Your task to perform on an android device: toggle wifi Image 0: 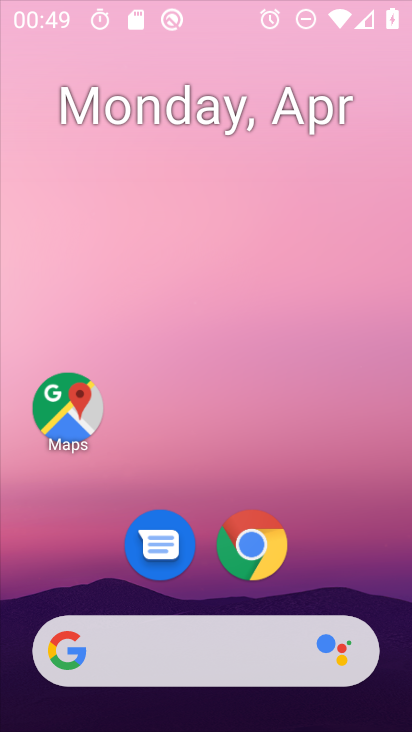
Step 0: click (363, 246)
Your task to perform on an android device: toggle wifi Image 1: 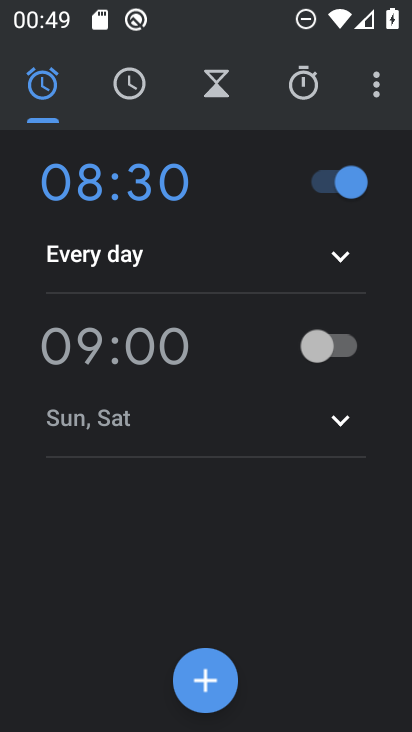
Step 1: press home button
Your task to perform on an android device: toggle wifi Image 2: 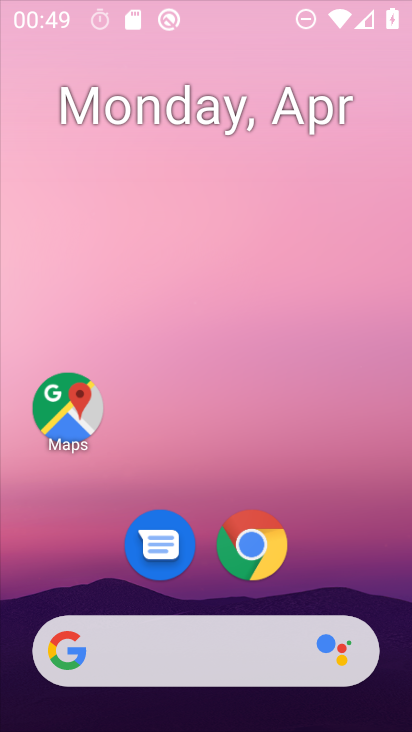
Step 2: drag from (279, 599) to (294, 300)
Your task to perform on an android device: toggle wifi Image 3: 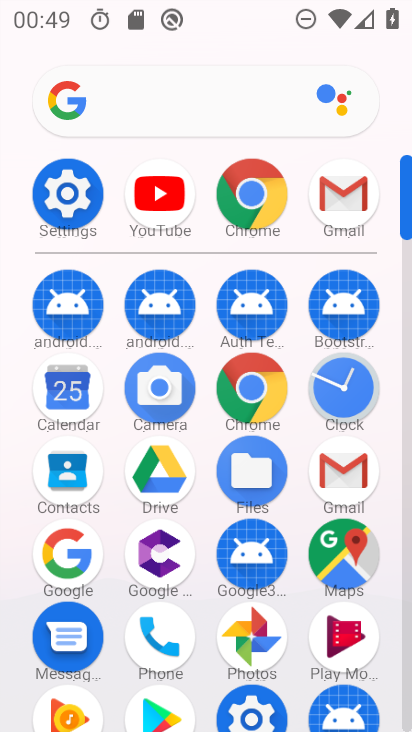
Step 3: click (78, 182)
Your task to perform on an android device: toggle wifi Image 4: 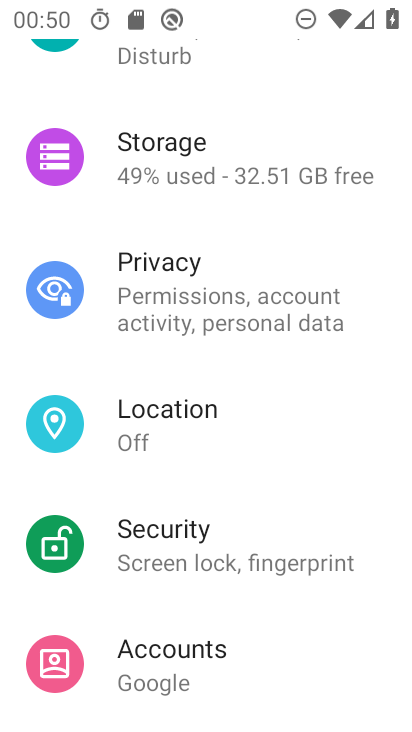
Step 4: drag from (225, 104) to (178, 716)
Your task to perform on an android device: toggle wifi Image 5: 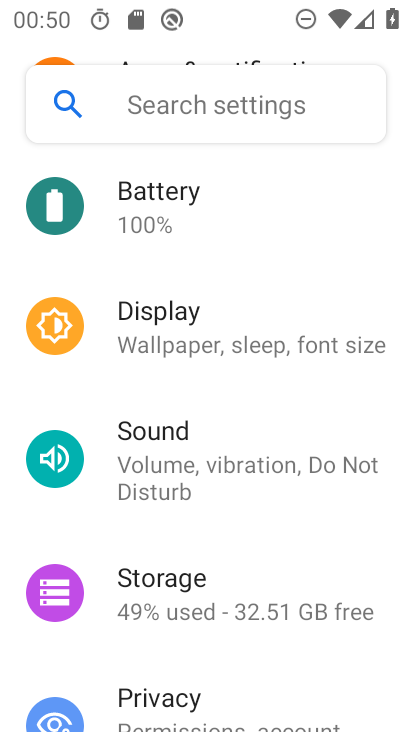
Step 5: drag from (197, 297) to (185, 605)
Your task to perform on an android device: toggle wifi Image 6: 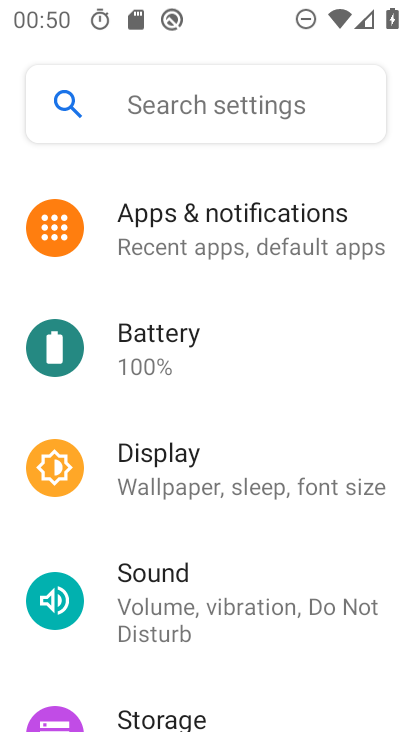
Step 6: click (237, 220)
Your task to perform on an android device: toggle wifi Image 7: 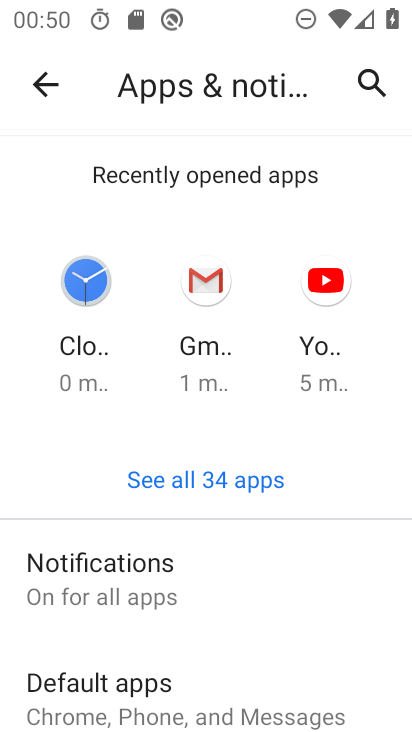
Step 7: click (49, 82)
Your task to perform on an android device: toggle wifi Image 8: 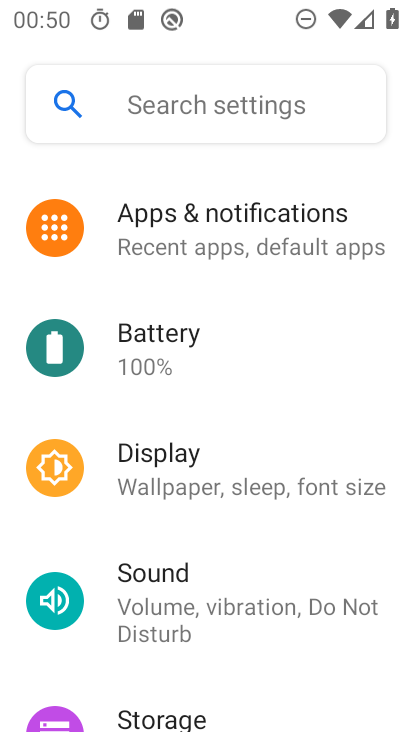
Step 8: drag from (237, 220) to (235, 604)
Your task to perform on an android device: toggle wifi Image 9: 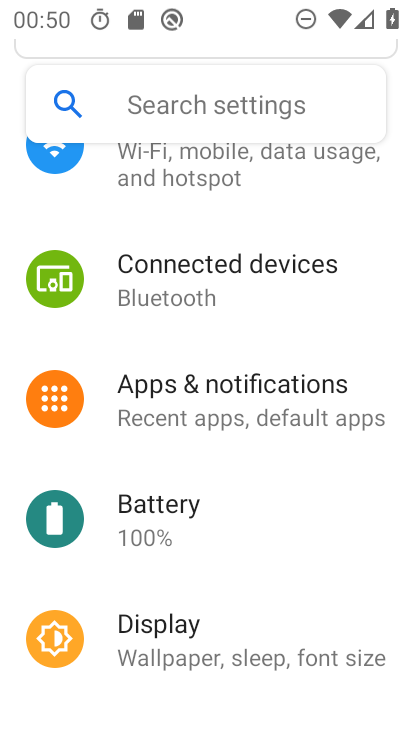
Step 9: click (222, 138)
Your task to perform on an android device: toggle wifi Image 10: 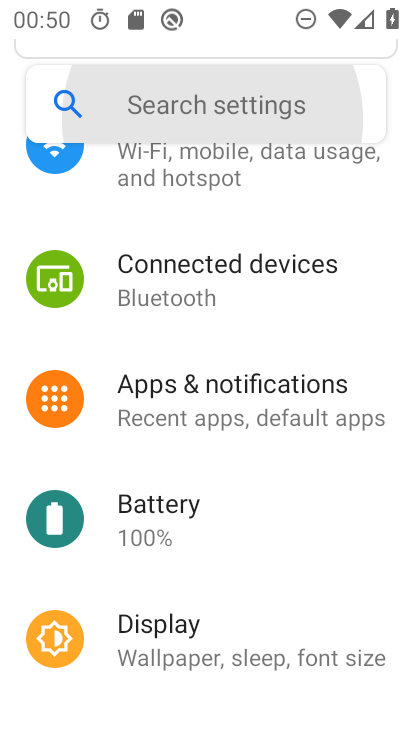
Step 10: click (212, 159)
Your task to perform on an android device: toggle wifi Image 11: 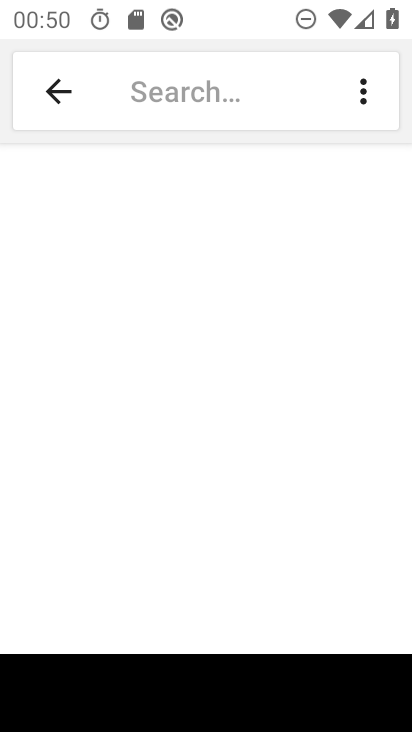
Step 11: click (50, 89)
Your task to perform on an android device: toggle wifi Image 12: 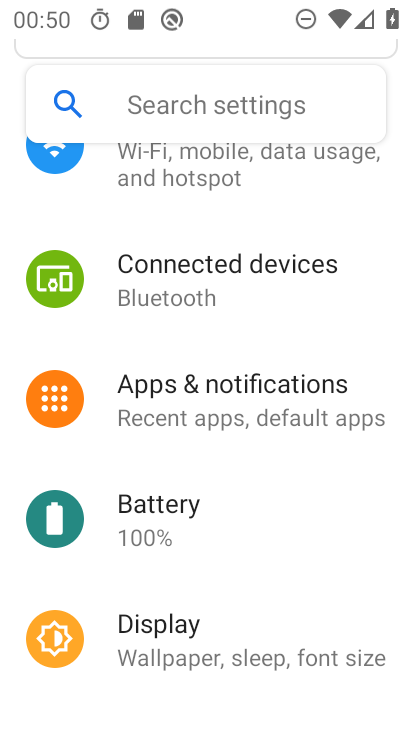
Step 12: drag from (183, 184) to (186, 561)
Your task to perform on an android device: toggle wifi Image 13: 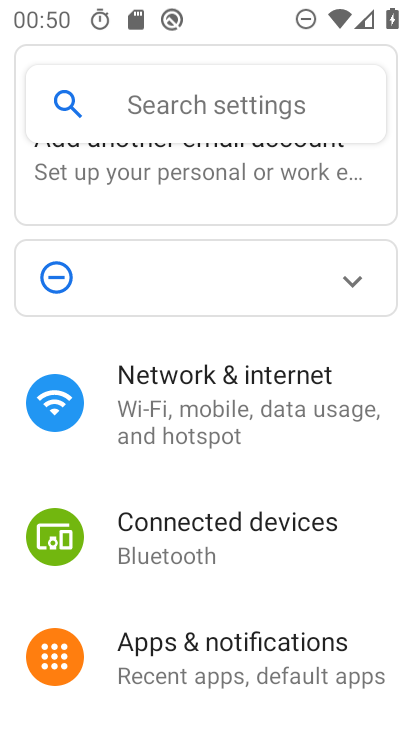
Step 13: click (160, 397)
Your task to perform on an android device: toggle wifi Image 14: 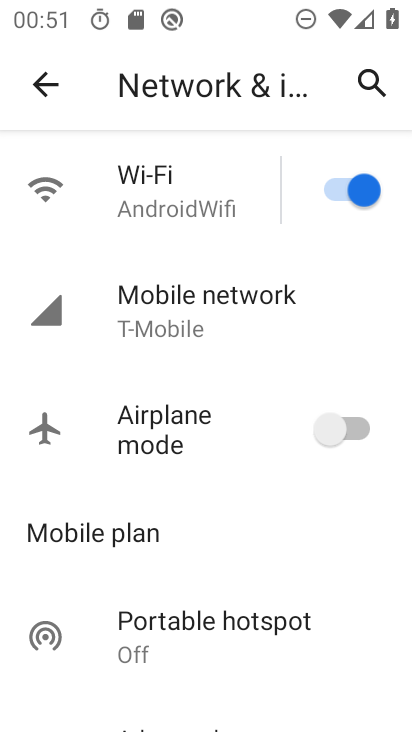
Step 14: click (336, 173)
Your task to perform on an android device: toggle wifi Image 15: 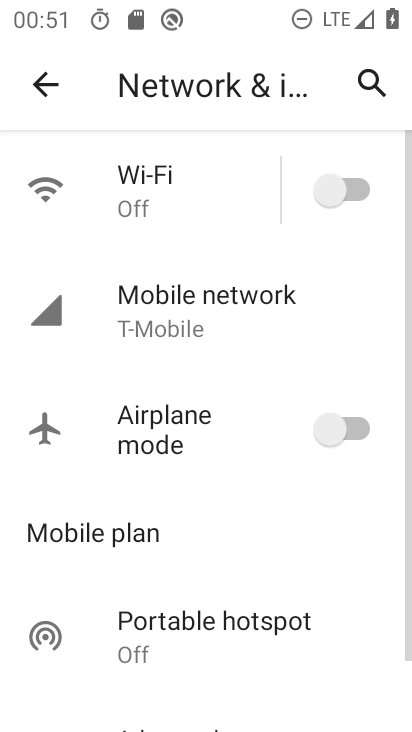
Step 15: task complete